Your task to perform on an android device: set default search engine in the chrome app Image 0: 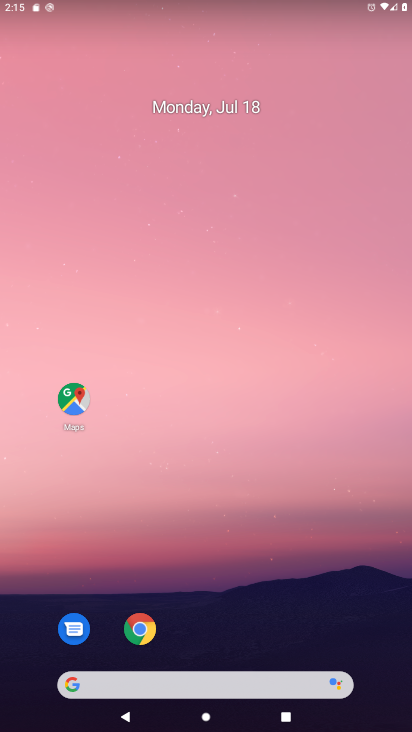
Step 0: click (273, 647)
Your task to perform on an android device: set default search engine in the chrome app Image 1: 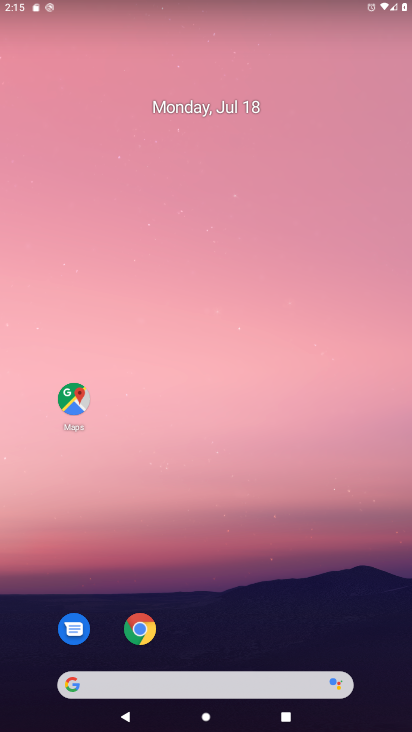
Step 1: click (137, 627)
Your task to perform on an android device: set default search engine in the chrome app Image 2: 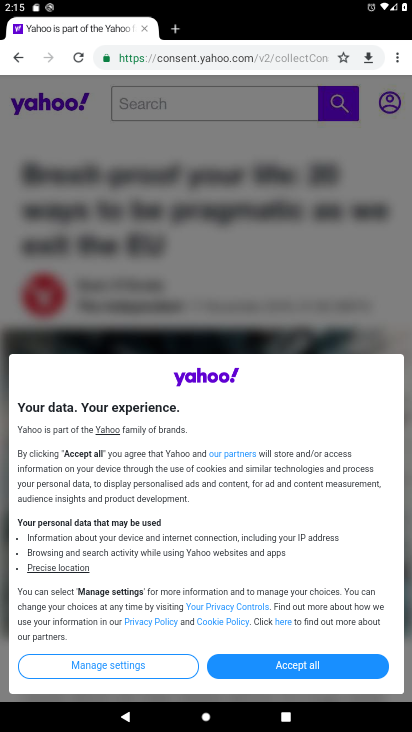
Step 2: click (395, 57)
Your task to perform on an android device: set default search engine in the chrome app Image 3: 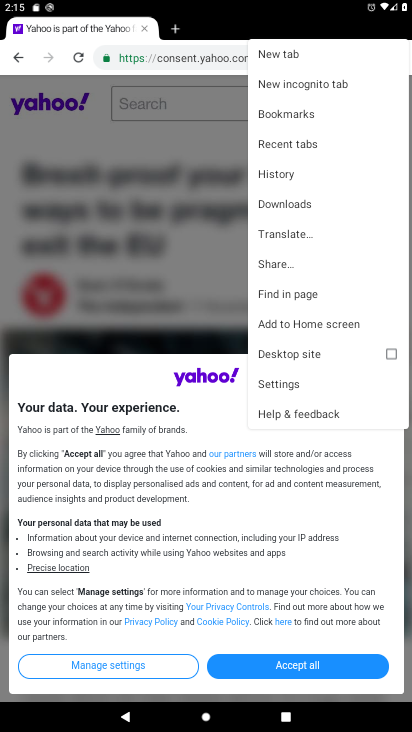
Step 3: click (276, 380)
Your task to perform on an android device: set default search engine in the chrome app Image 4: 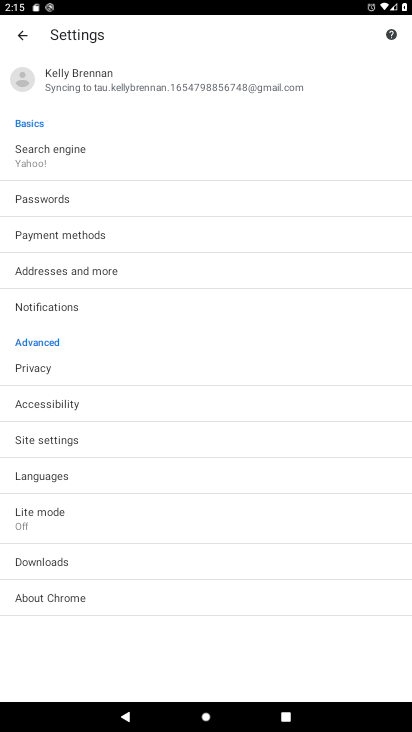
Step 4: click (32, 172)
Your task to perform on an android device: set default search engine in the chrome app Image 5: 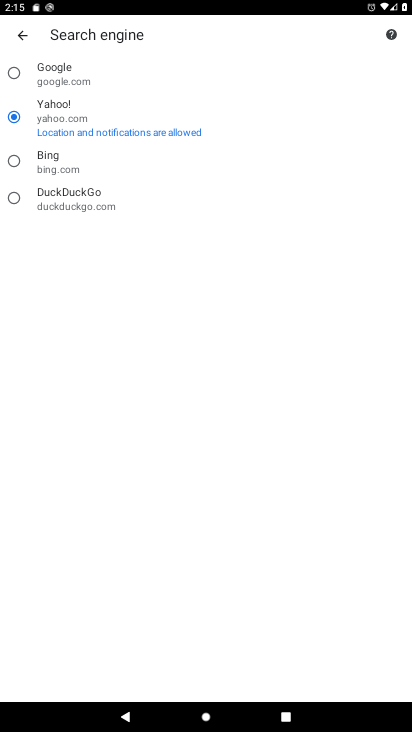
Step 5: click (12, 71)
Your task to perform on an android device: set default search engine in the chrome app Image 6: 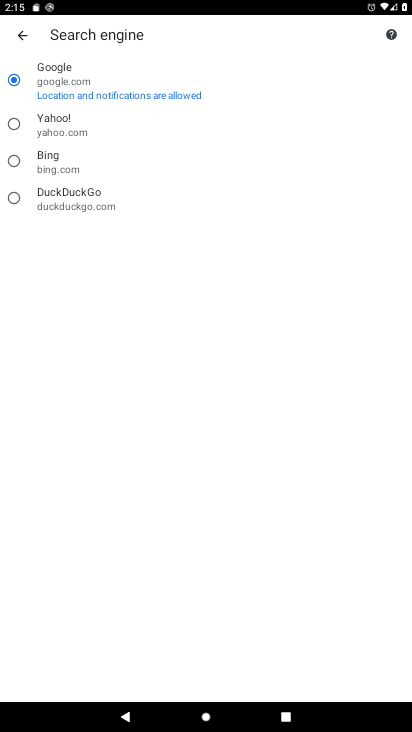
Step 6: task complete